Your task to perform on an android device: turn on bluetooth scan Image 0: 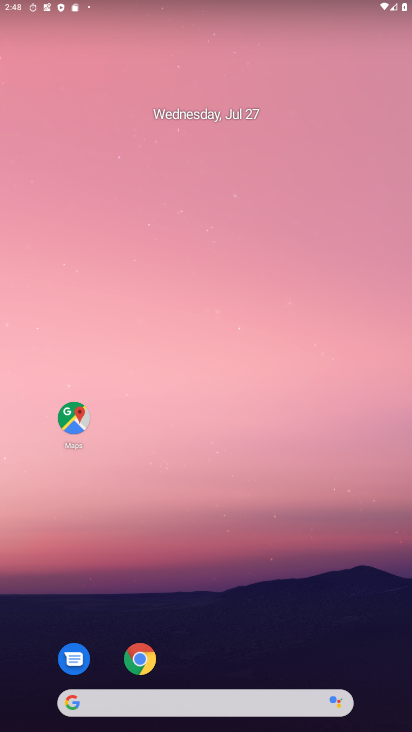
Step 0: drag from (233, 724) to (216, 113)
Your task to perform on an android device: turn on bluetooth scan Image 1: 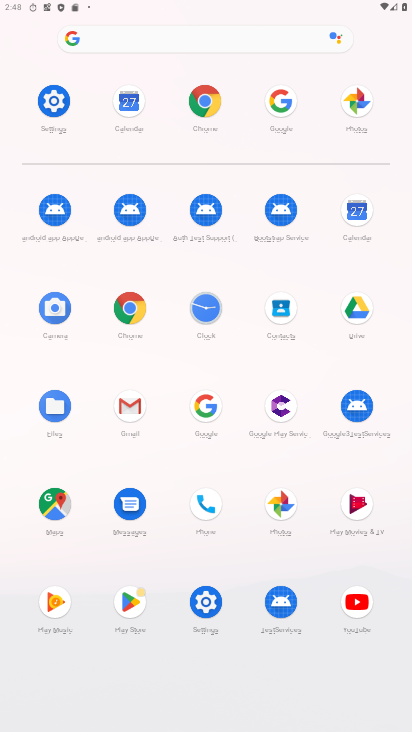
Step 1: click (49, 95)
Your task to perform on an android device: turn on bluetooth scan Image 2: 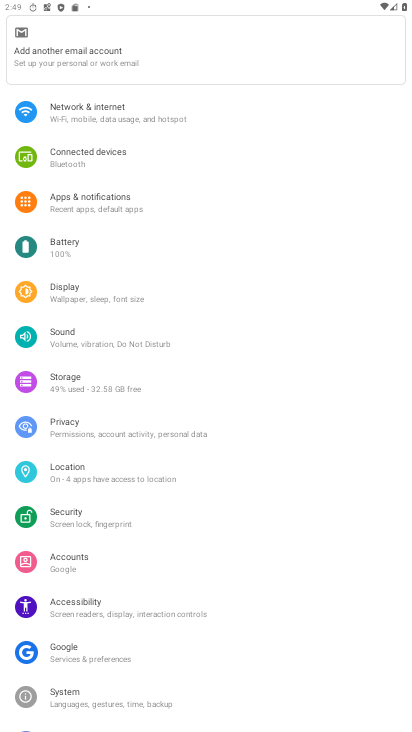
Step 2: click (59, 474)
Your task to perform on an android device: turn on bluetooth scan Image 3: 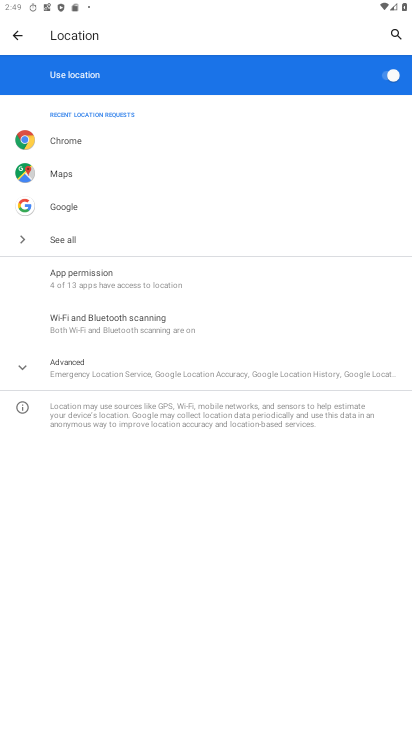
Step 3: click (80, 327)
Your task to perform on an android device: turn on bluetooth scan Image 4: 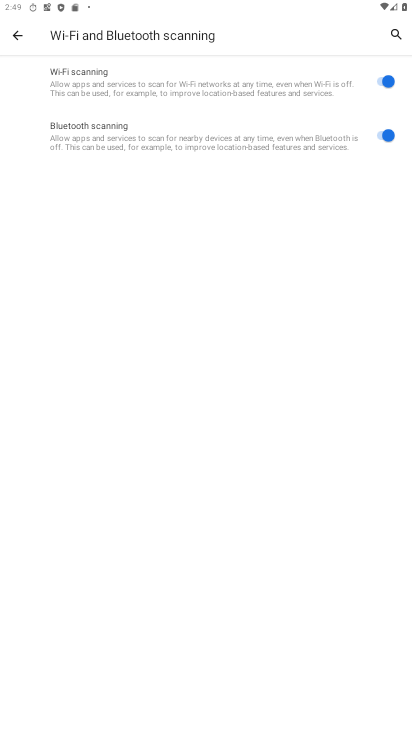
Step 4: task complete